Your task to perform on an android device: Open the calendar app, open the side menu, and click the "Day" option Image 0: 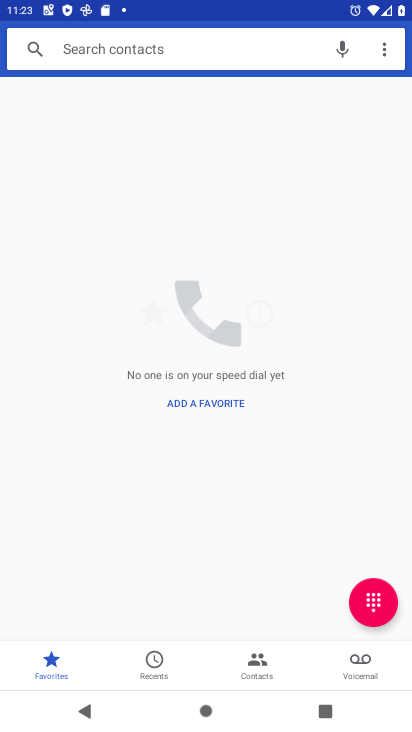
Step 0: press home button
Your task to perform on an android device: Open the calendar app, open the side menu, and click the "Day" option Image 1: 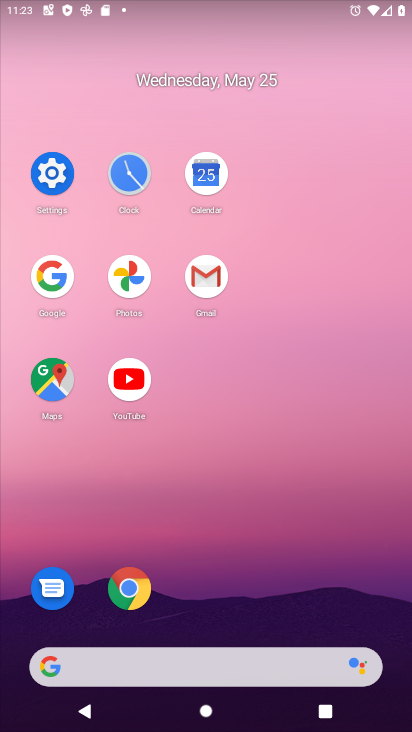
Step 1: click (214, 180)
Your task to perform on an android device: Open the calendar app, open the side menu, and click the "Day" option Image 2: 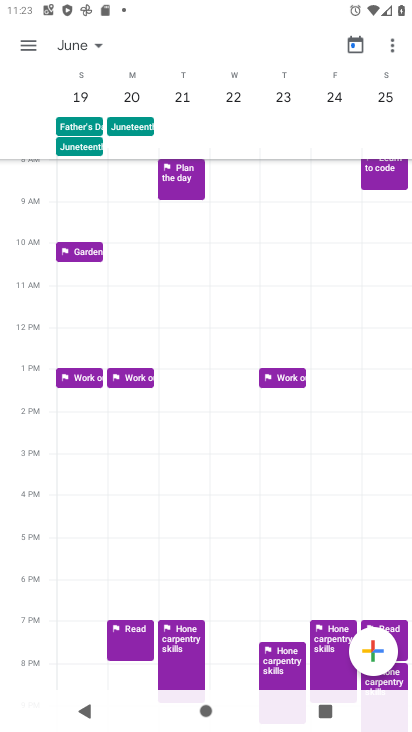
Step 2: click (29, 52)
Your task to perform on an android device: Open the calendar app, open the side menu, and click the "Day" option Image 3: 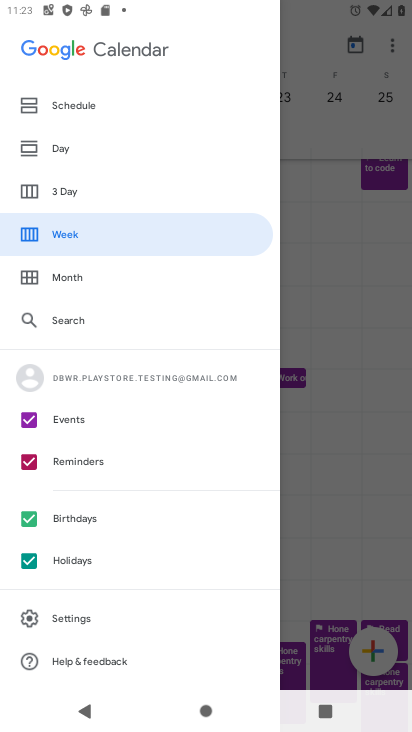
Step 3: click (64, 144)
Your task to perform on an android device: Open the calendar app, open the side menu, and click the "Day" option Image 4: 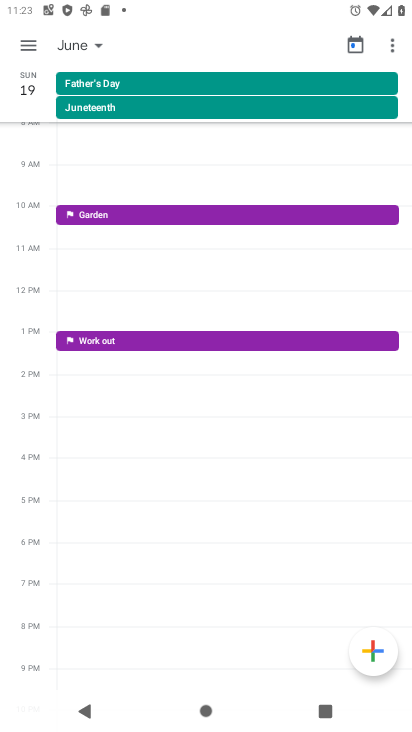
Step 4: task complete